Your task to perform on an android device: refresh tabs in the chrome app Image 0: 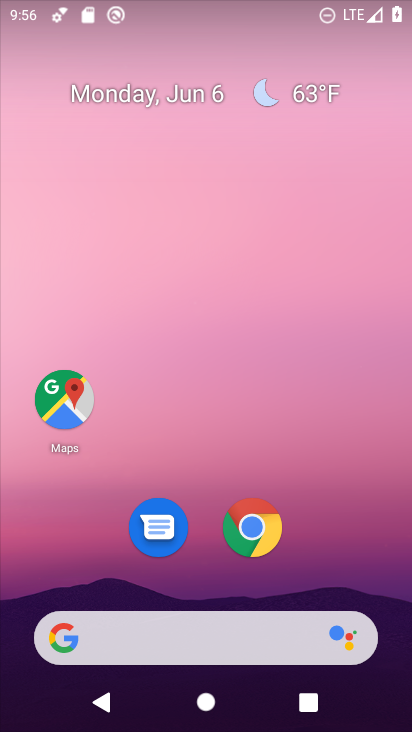
Step 0: drag from (356, 562) to (369, 158)
Your task to perform on an android device: refresh tabs in the chrome app Image 1: 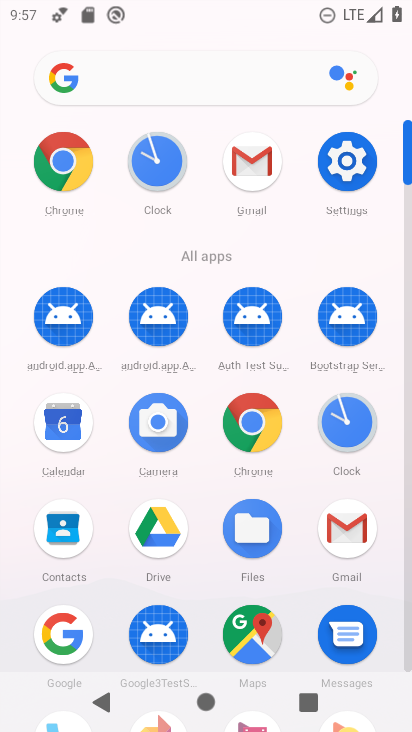
Step 1: click (263, 424)
Your task to perform on an android device: refresh tabs in the chrome app Image 2: 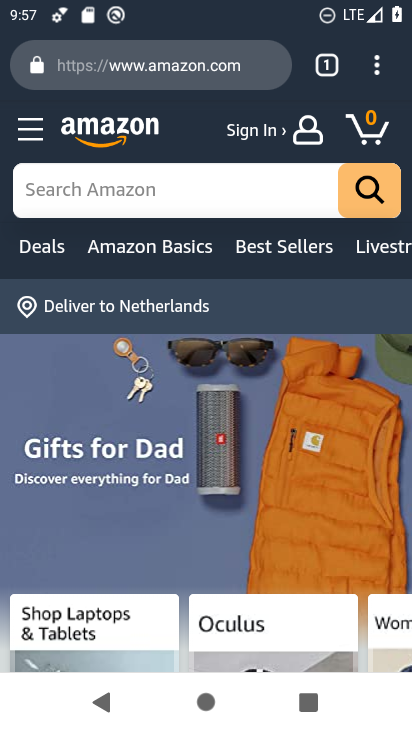
Step 2: click (381, 71)
Your task to perform on an android device: refresh tabs in the chrome app Image 3: 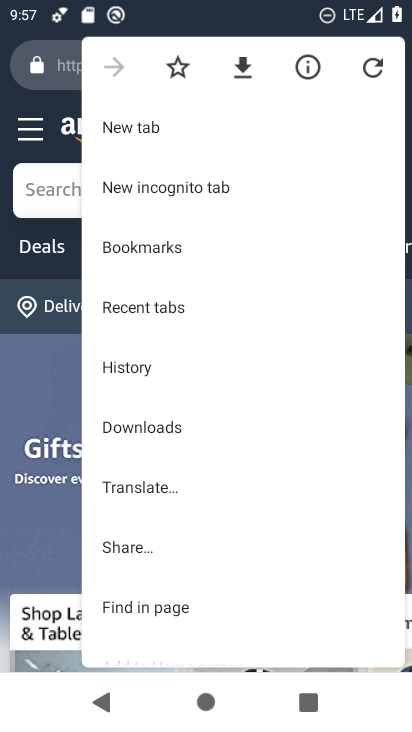
Step 3: drag from (297, 461) to (318, 367)
Your task to perform on an android device: refresh tabs in the chrome app Image 4: 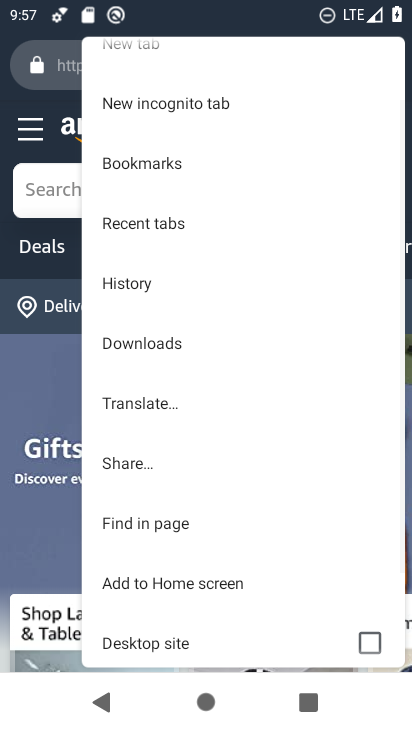
Step 4: drag from (313, 490) to (310, 327)
Your task to perform on an android device: refresh tabs in the chrome app Image 5: 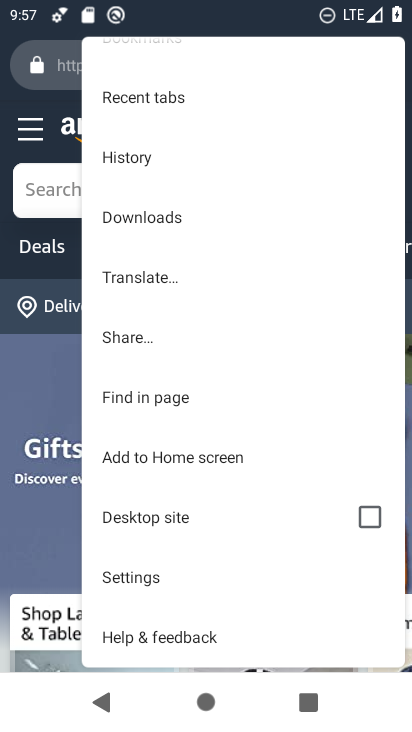
Step 5: drag from (316, 264) to (314, 469)
Your task to perform on an android device: refresh tabs in the chrome app Image 6: 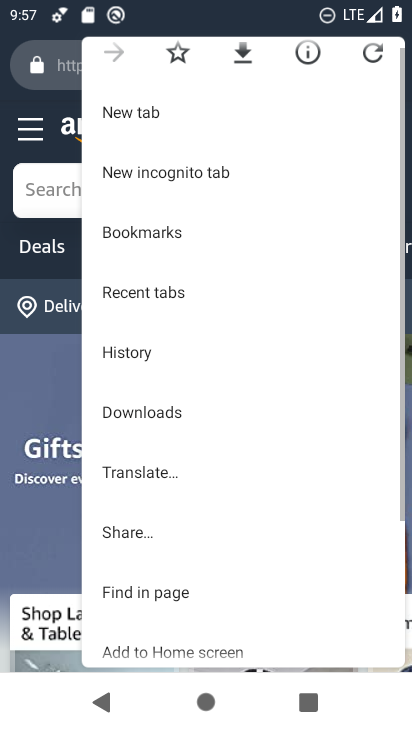
Step 6: drag from (354, 279) to (300, 446)
Your task to perform on an android device: refresh tabs in the chrome app Image 7: 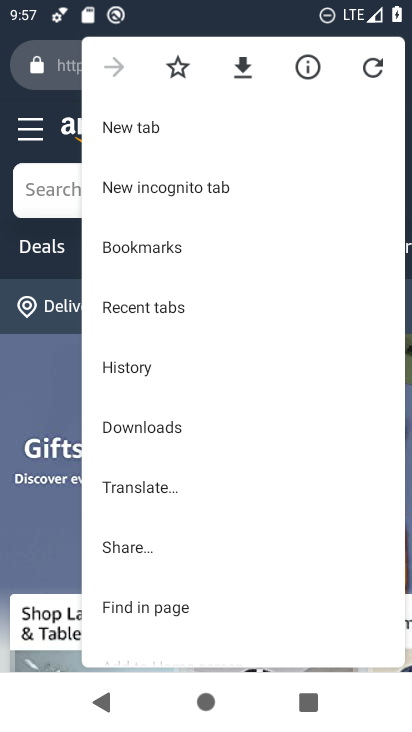
Step 7: click (375, 71)
Your task to perform on an android device: refresh tabs in the chrome app Image 8: 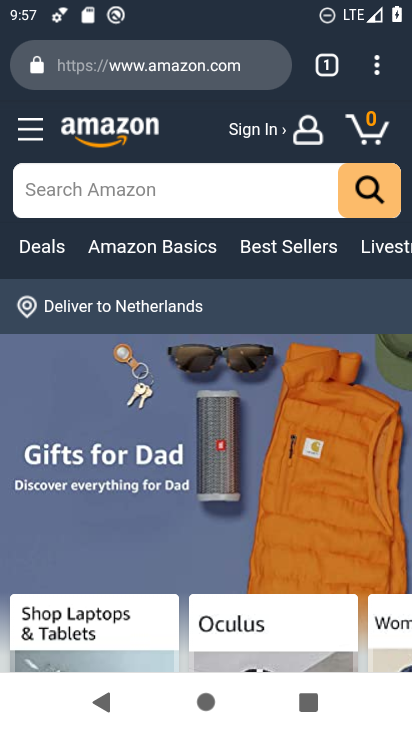
Step 8: task complete